Your task to perform on an android device: open app "AliExpress" (install if not already installed), go to login, and select forgot password Image 0: 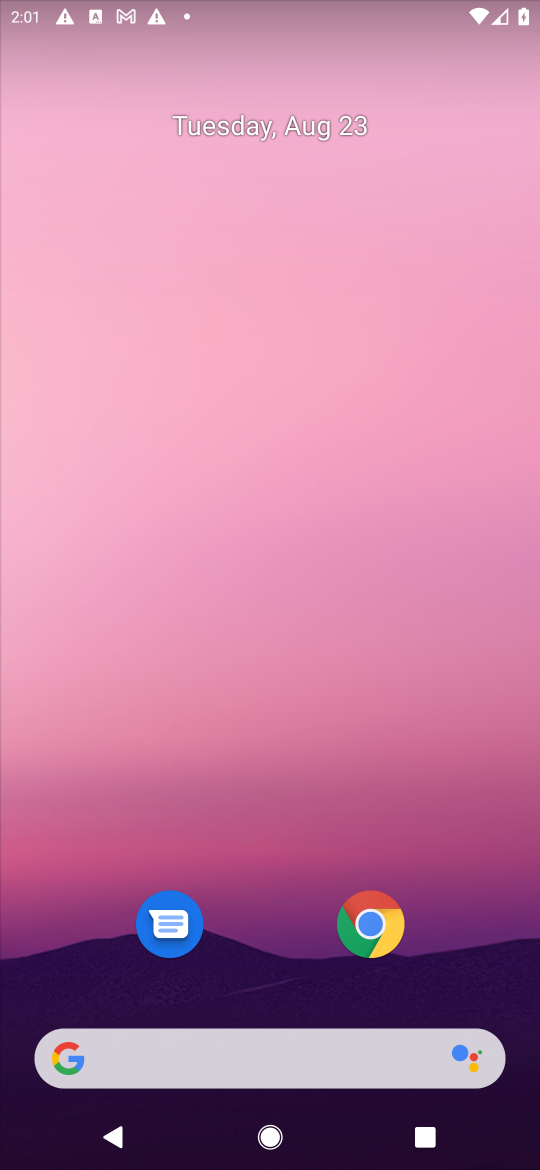
Step 0: press home button
Your task to perform on an android device: open app "AliExpress" (install if not already installed), go to login, and select forgot password Image 1: 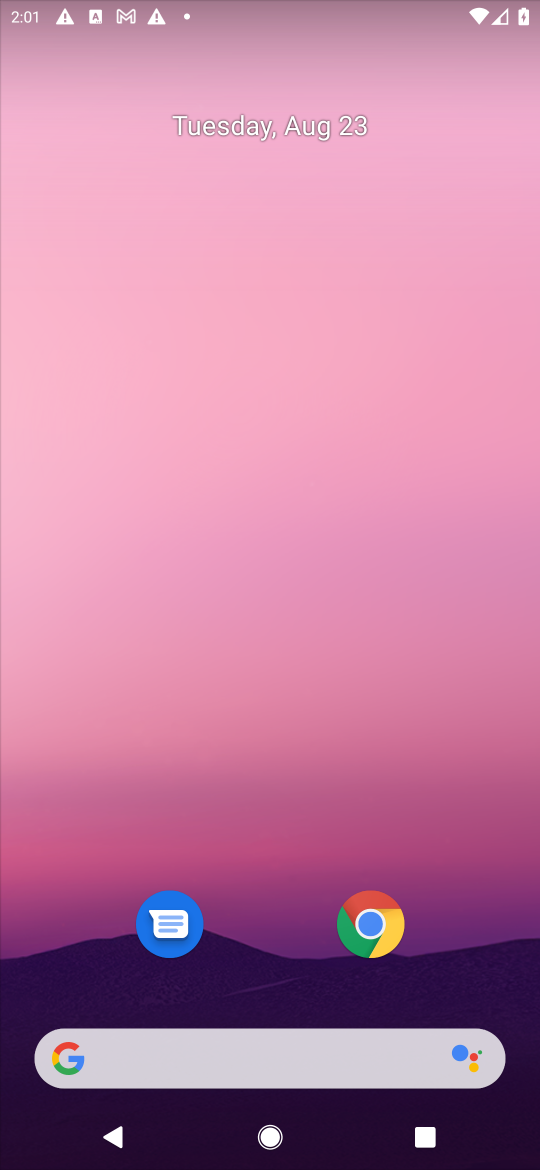
Step 1: drag from (470, 898) to (480, 278)
Your task to perform on an android device: open app "AliExpress" (install if not already installed), go to login, and select forgot password Image 2: 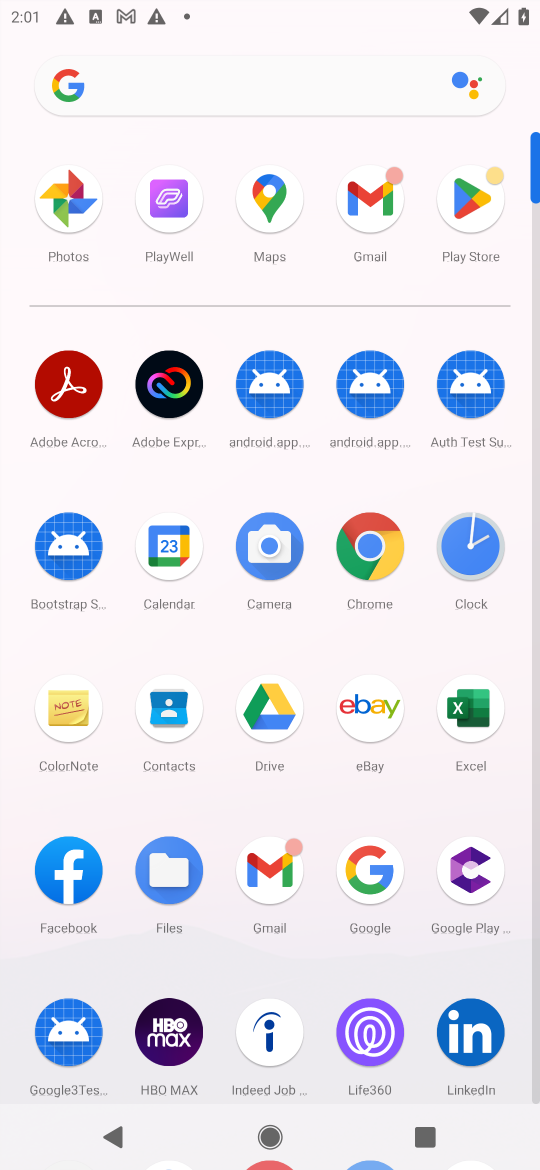
Step 2: click (458, 185)
Your task to perform on an android device: open app "AliExpress" (install if not already installed), go to login, and select forgot password Image 3: 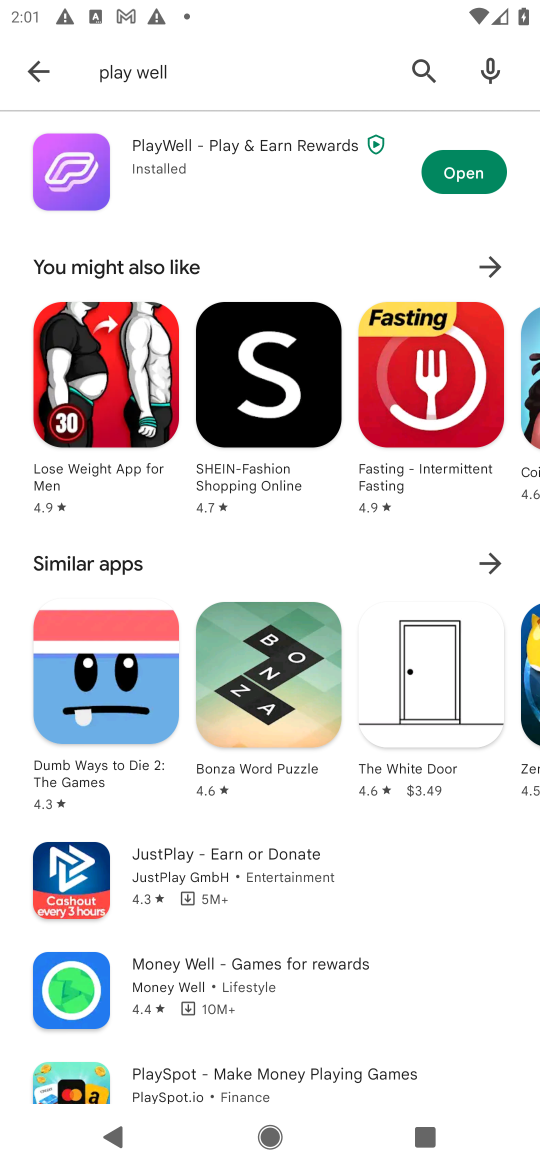
Step 3: press back button
Your task to perform on an android device: open app "AliExpress" (install if not already installed), go to login, and select forgot password Image 4: 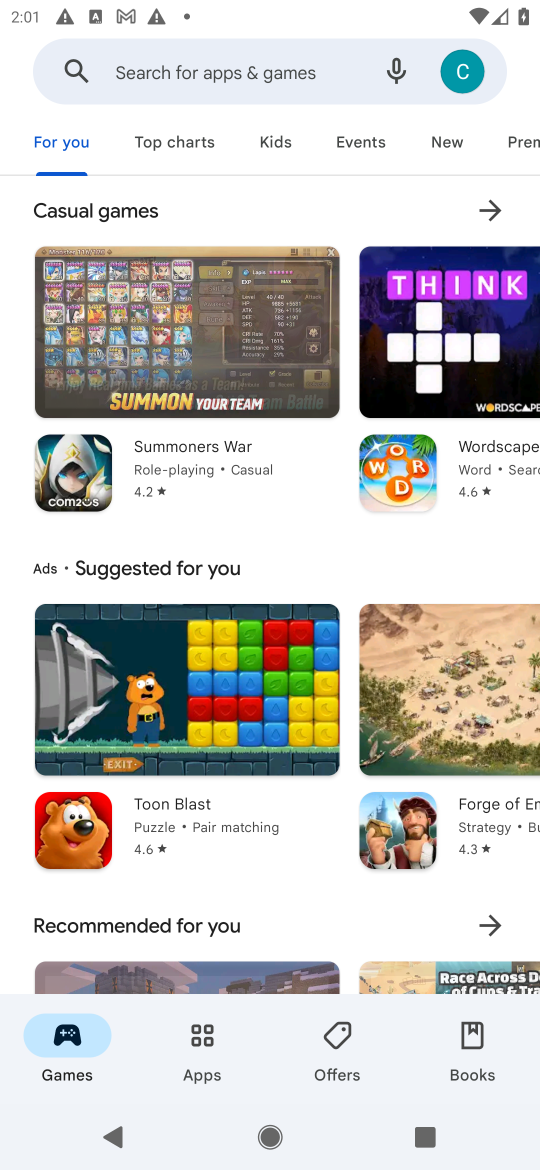
Step 4: click (232, 65)
Your task to perform on an android device: open app "AliExpress" (install if not already installed), go to login, and select forgot password Image 5: 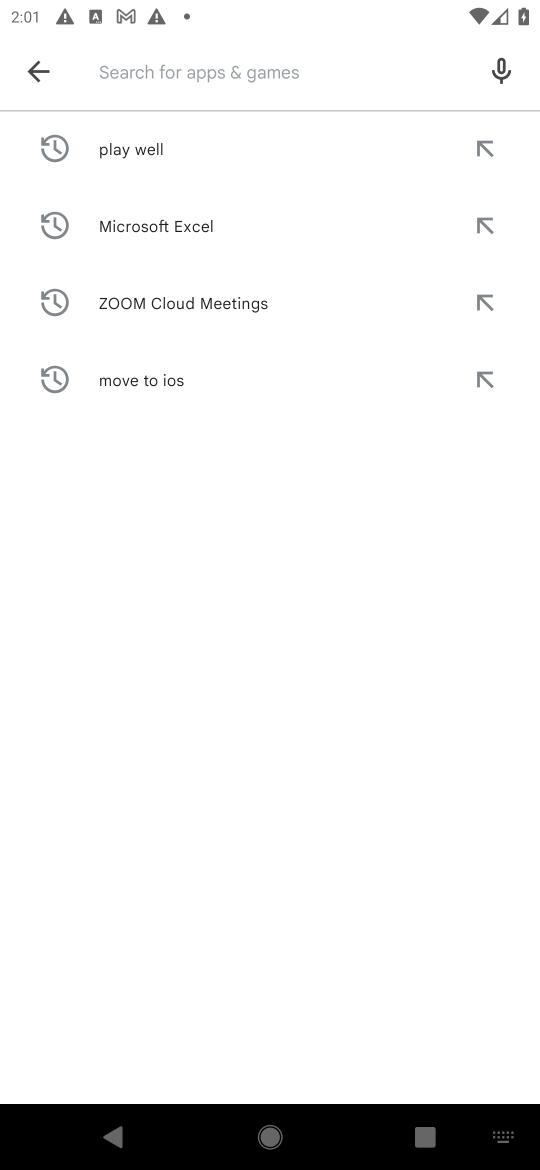
Step 5: press enter
Your task to perform on an android device: open app "AliExpress" (install if not already installed), go to login, and select forgot password Image 6: 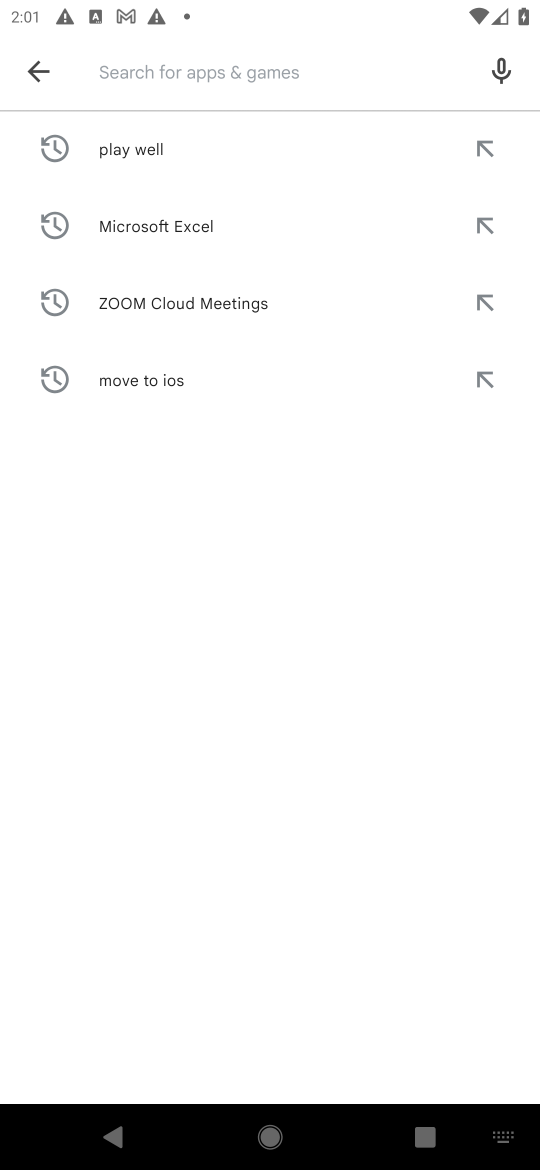
Step 6: type "AliExpress"
Your task to perform on an android device: open app "AliExpress" (install if not already installed), go to login, and select forgot password Image 7: 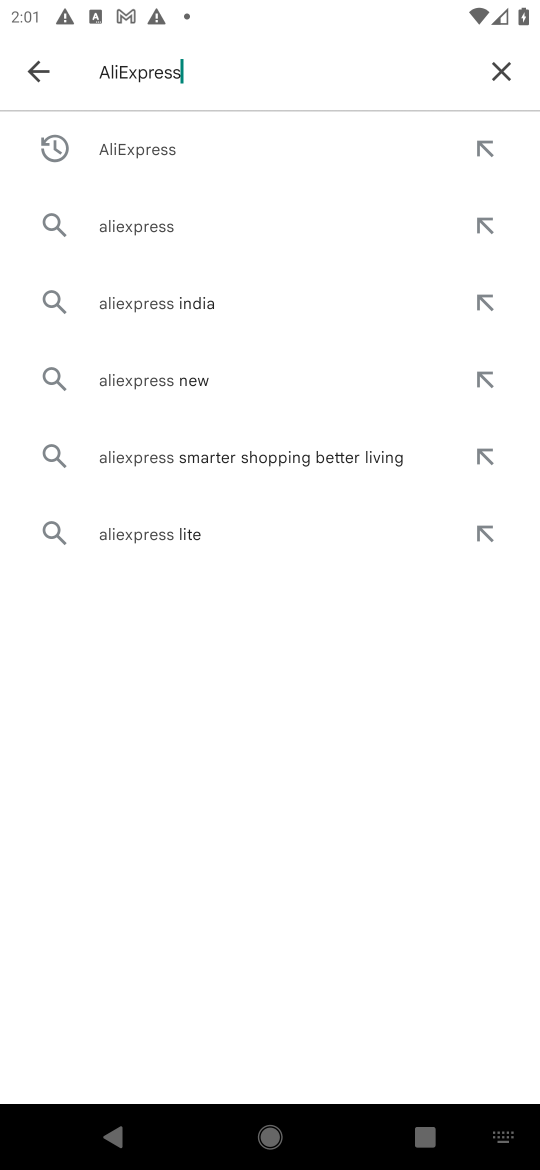
Step 7: click (142, 142)
Your task to perform on an android device: open app "AliExpress" (install if not already installed), go to login, and select forgot password Image 8: 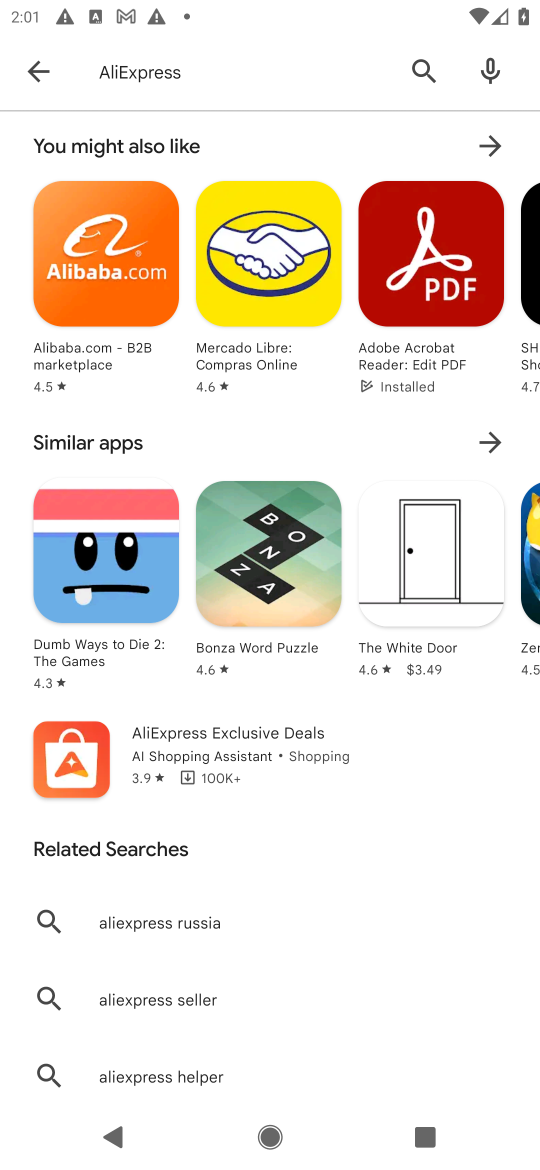
Step 8: task complete